Your task to perform on an android device: change the clock display to show seconds Image 0: 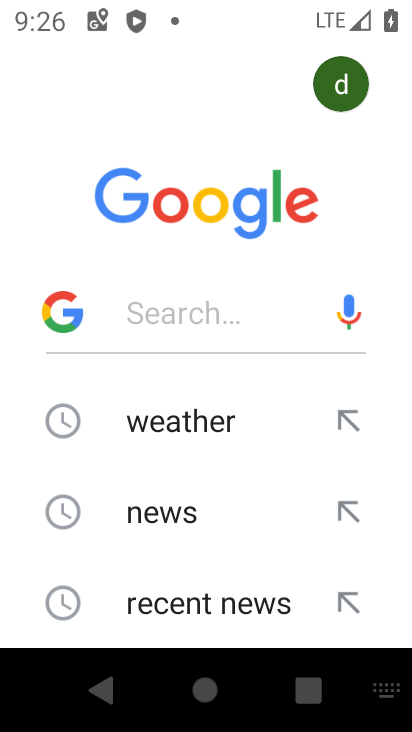
Step 0: press home button
Your task to perform on an android device: change the clock display to show seconds Image 1: 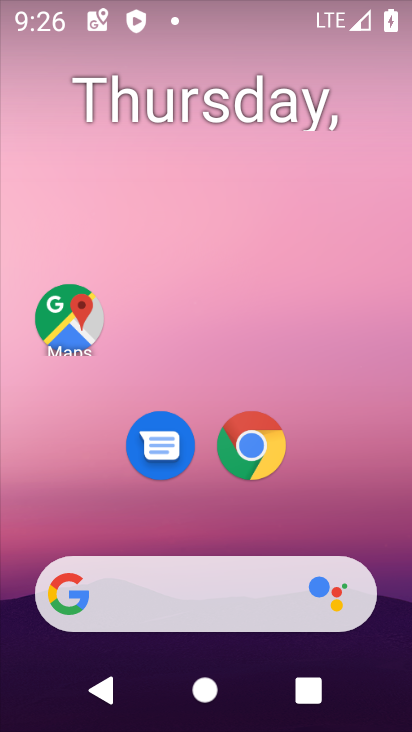
Step 1: drag from (71, 542) to (194, 64)
Your task to perform on an android device: change the clock display to show seconds Image 2: 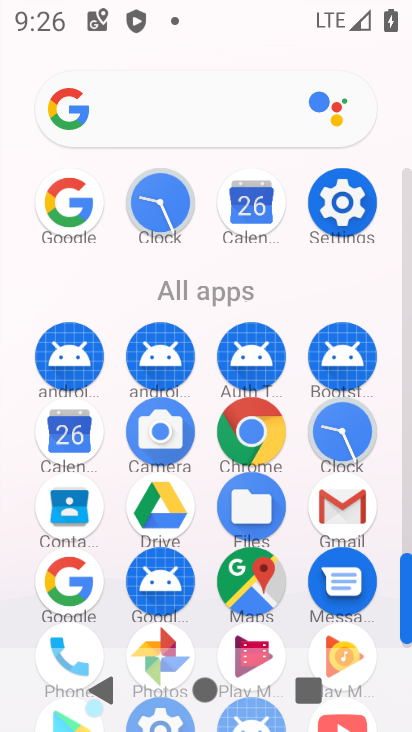
Step 2: click (346, 408)
Your task to perform on an android device: change the clock display to show seconds Image 3: 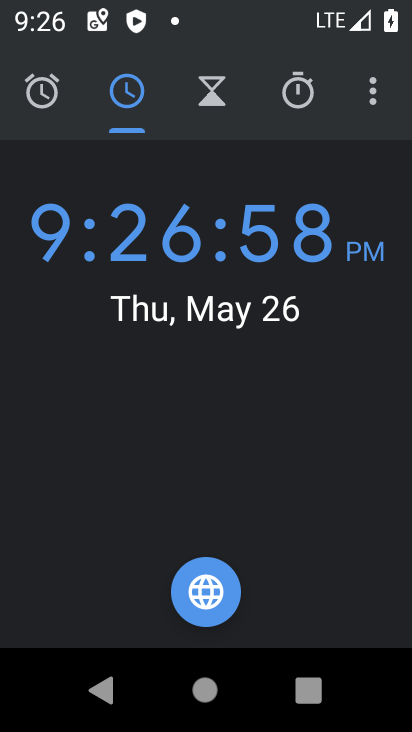
Step 3: click (379, 84)
Your task to perform on an android device: change the clock display to show seconds Image 4: 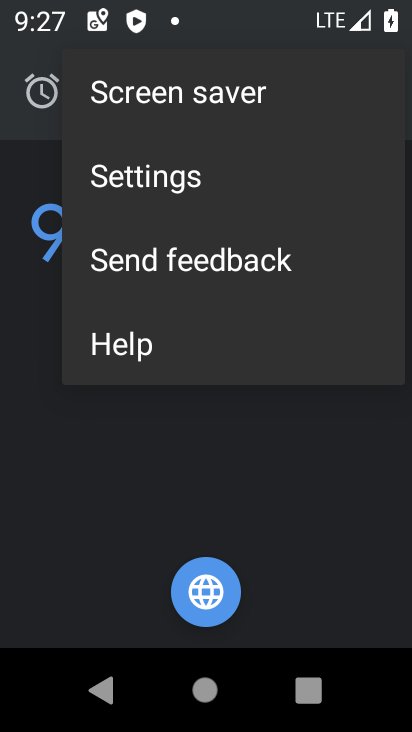
Step 4: click (333, 178)
Your task to perform on an android device: change the clock display to show seconds Image 5: 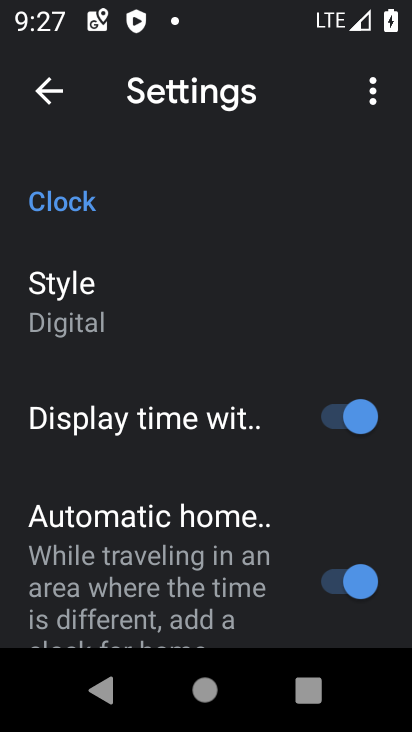
Step 5: task complete